Your task to perform on an android device: Go to battery settings Image 0: 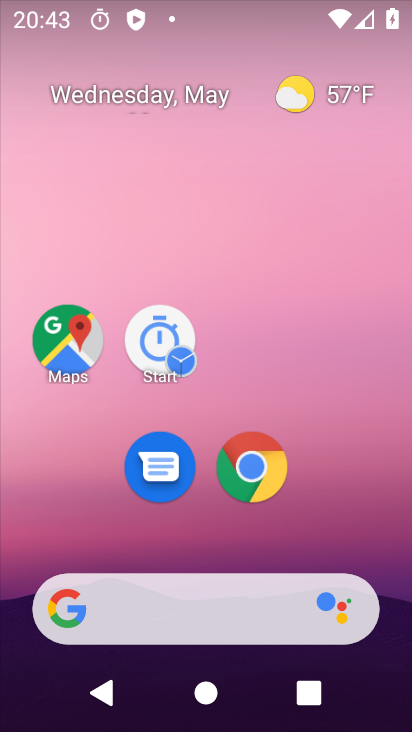
Step 0: drag from (365, 586) to (144, 105)
Your task to perform on an android device: Go to battery settings Image 1: 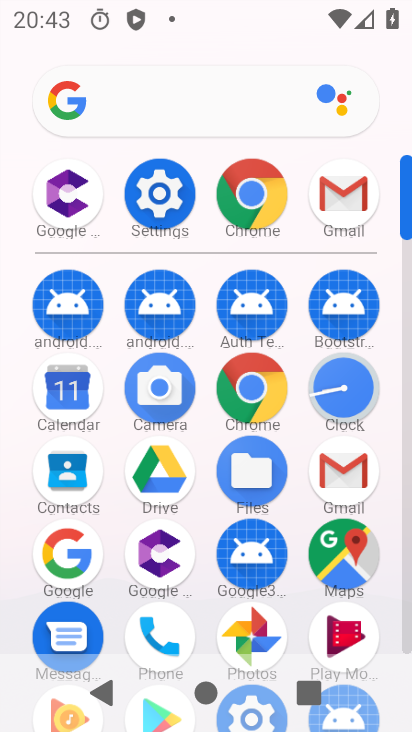
Step 1: click (167, 183)
Your task to perform on an android device: Go to battery settings Image 2: 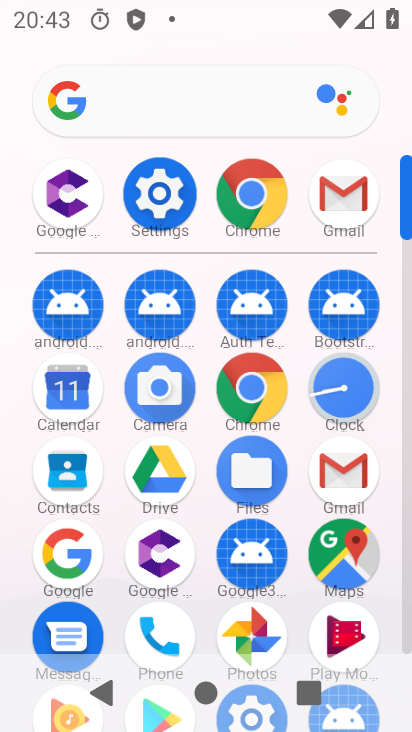
Step 2: click (154, 171)
Your task to perform on an android device: Go to battery settings Image 3: 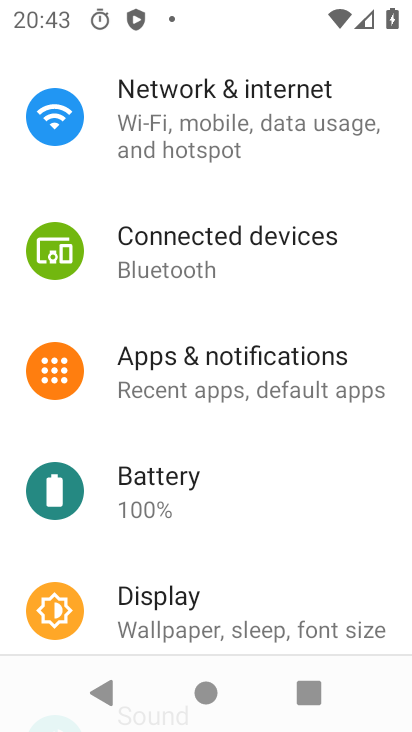
Step 3: click (145, 479)
Your task to perform on an android device: Go to battery settings Image 4: 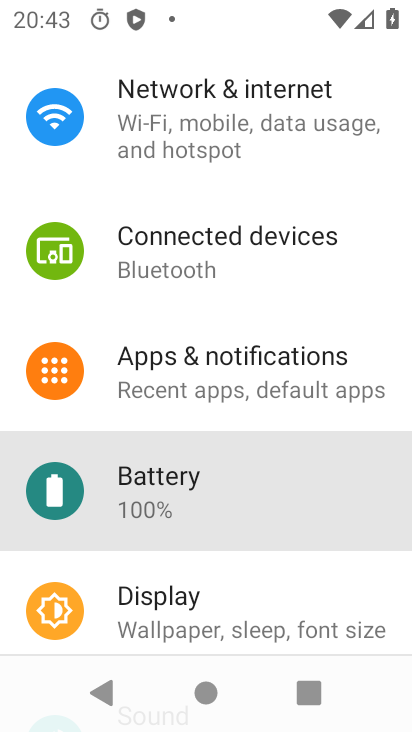
Step 4: click (140, 467)
Your task to perform on an android device: Go to battery settings Image 5: 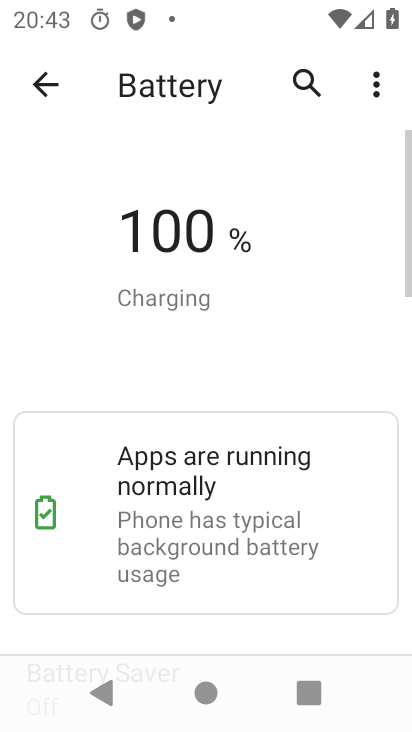
Step 5: task complete